Your task to perform on an android device: turn smart compose on in the gmail app Image 0: 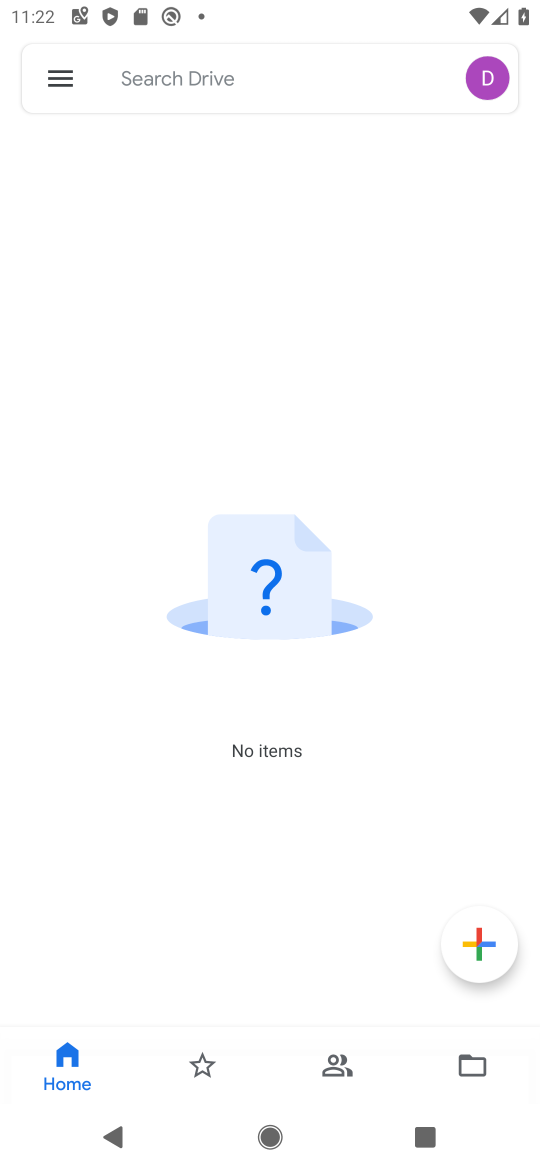
Step 0: drag from (302, 998) to (392, 127)
Your task to perform on an android device: turn smart compose on in the gmail app Image 1: 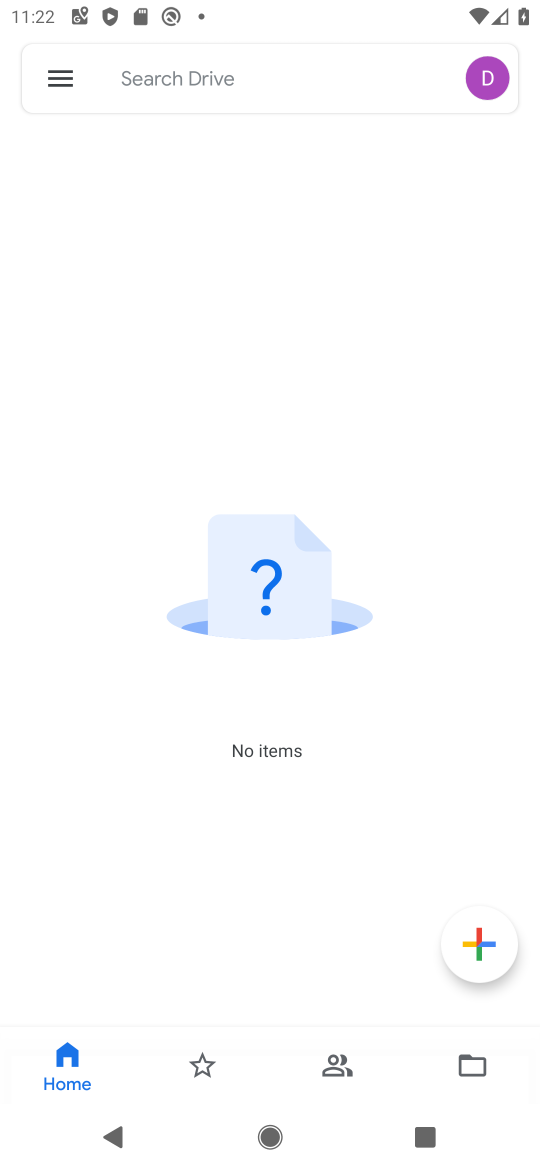
Step 1: click (67, 78)
Your task to perform on an android device: turn smart compose on in the gmail app Image 2: 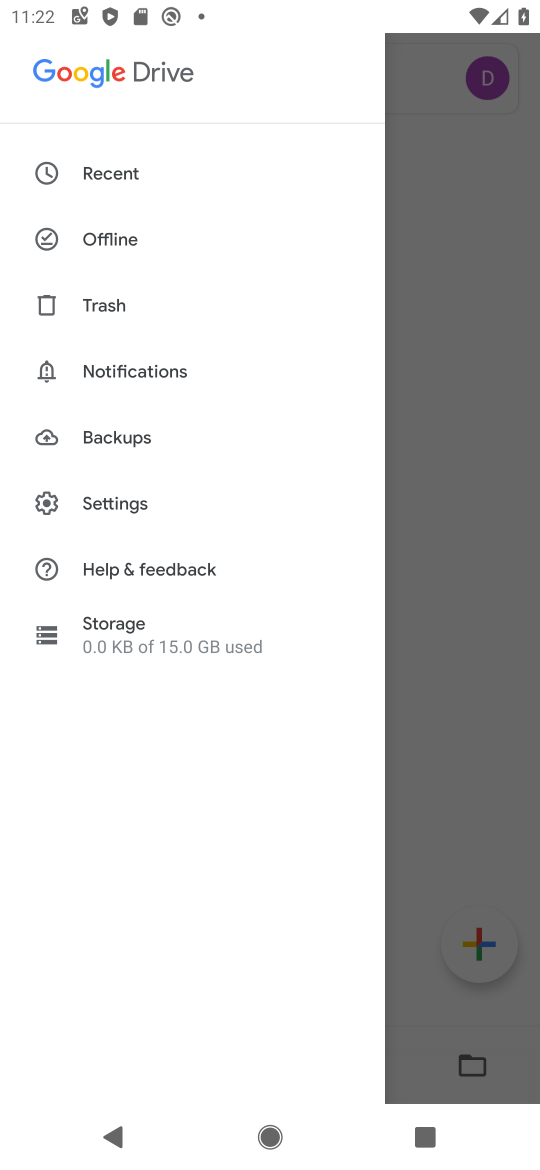
Step 2: press home button
Your task to perform on an android device: turn smart compose on in the gmail app Image 3: 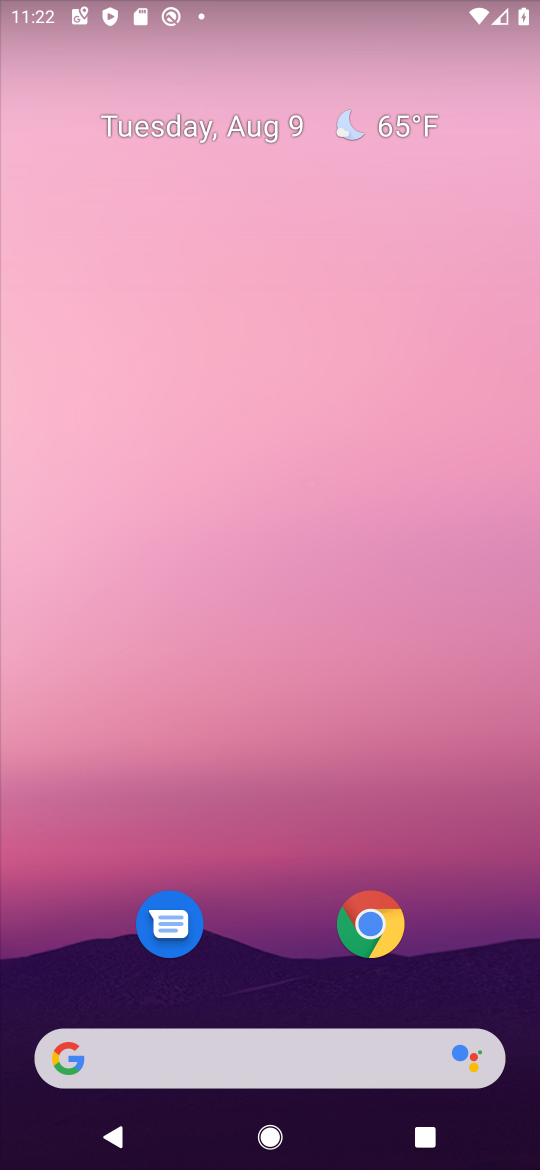
Step 3: drag from (251, 849) to (267, 0)
Your task to perform on an android device: turn smart compose on in the gmail app Image 4: 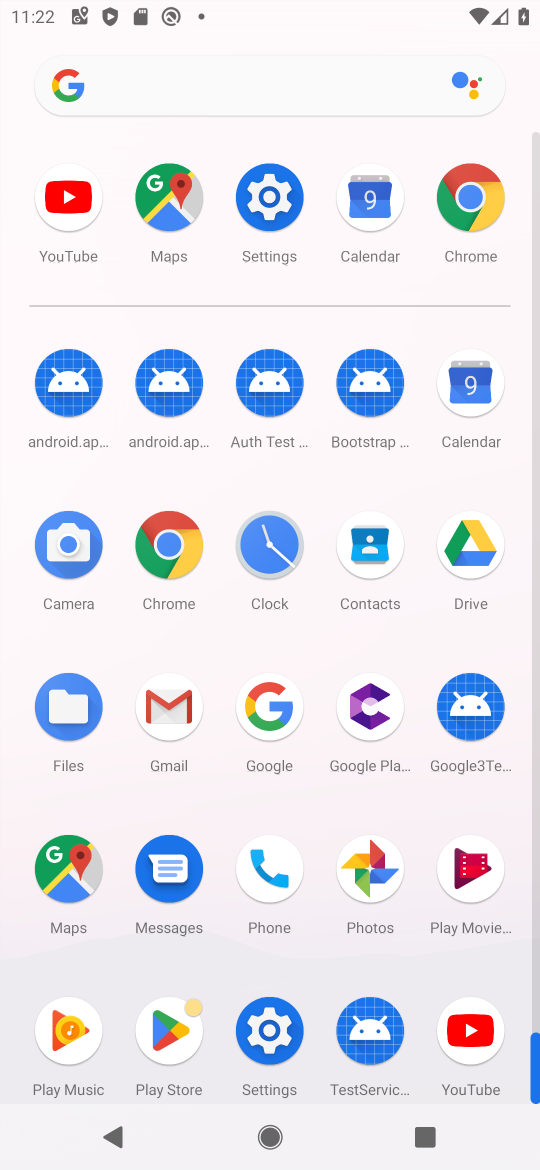
Step 4: click (184, 703)
Your task to perform on an android device: turn smart compose on in the gmail app Image 5: 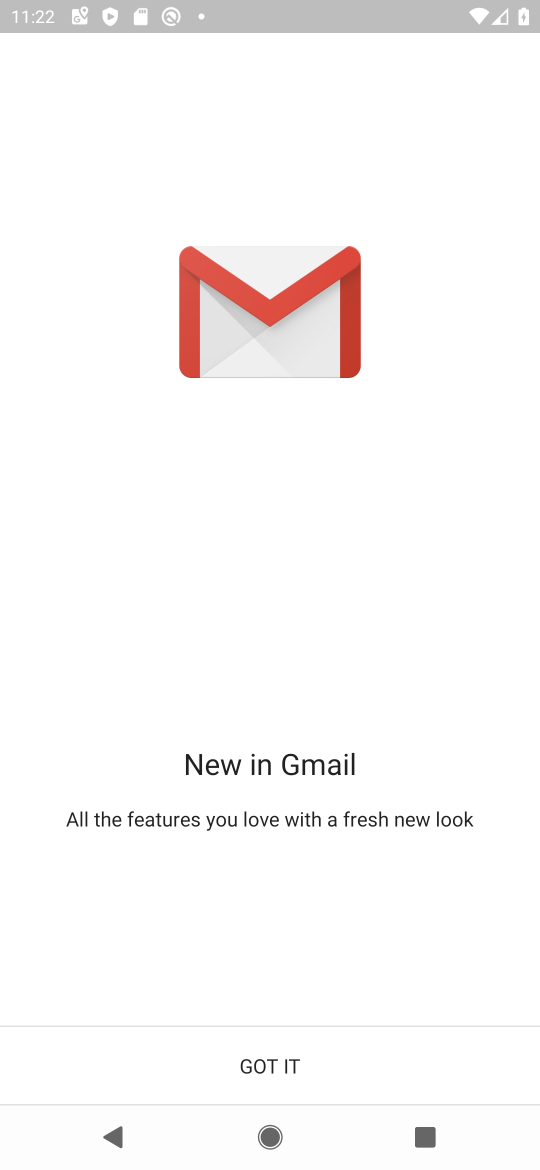
Step 5: click (279, 1051)
Your task to perform on an android device: turn smart compose on in the gmail app Image 6: 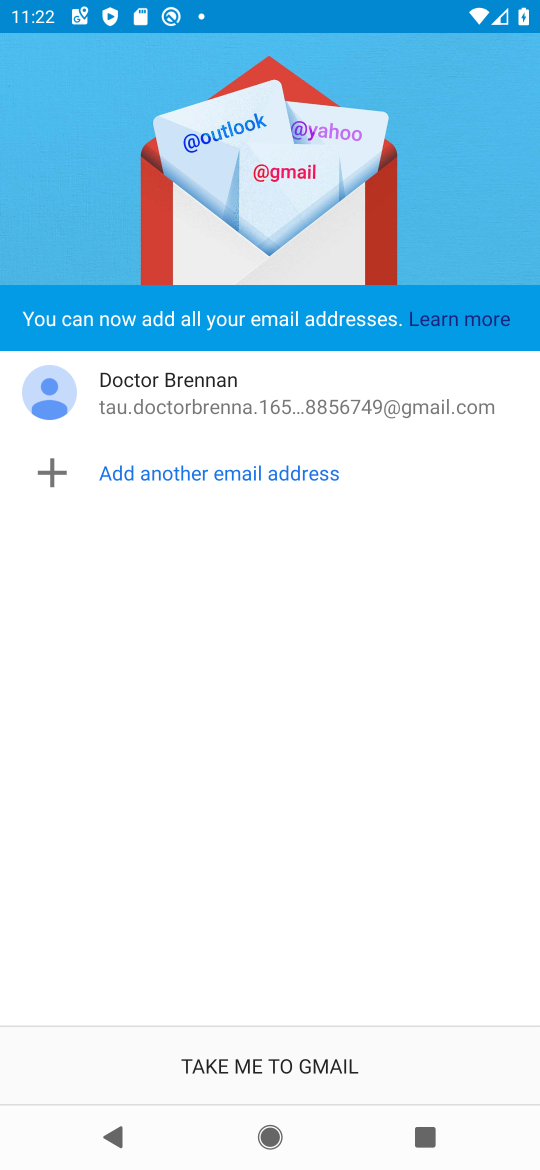
Step 6: click (279, 1051)
Your task to perform on an android device: turn smart compose on in the gmail app Image 7: 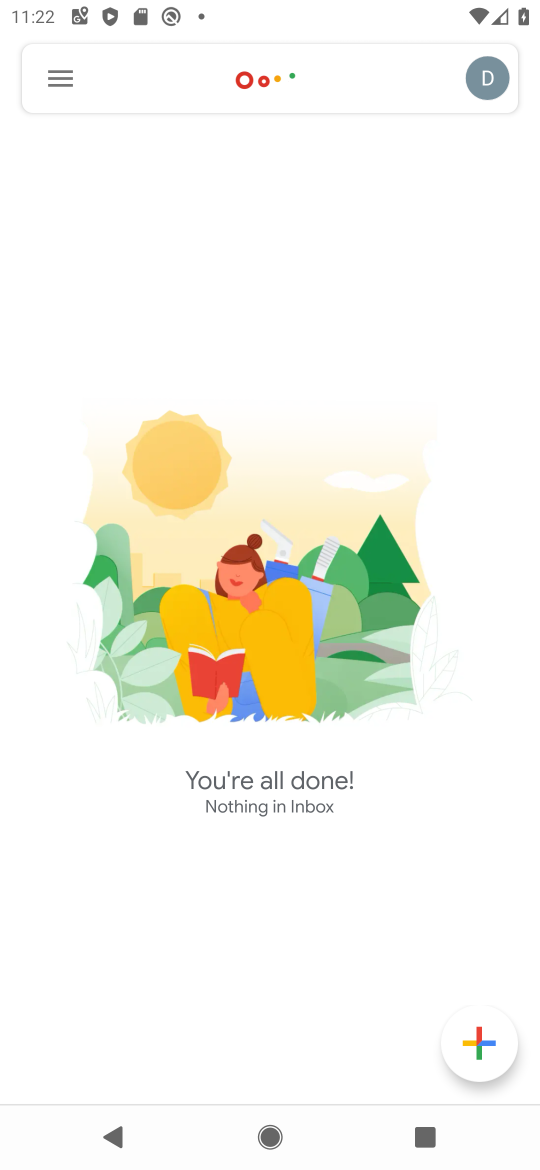
Step 7: click (52, 76)
Your task to perform on an android device: turn smart compose on in the gmail app Image 8: 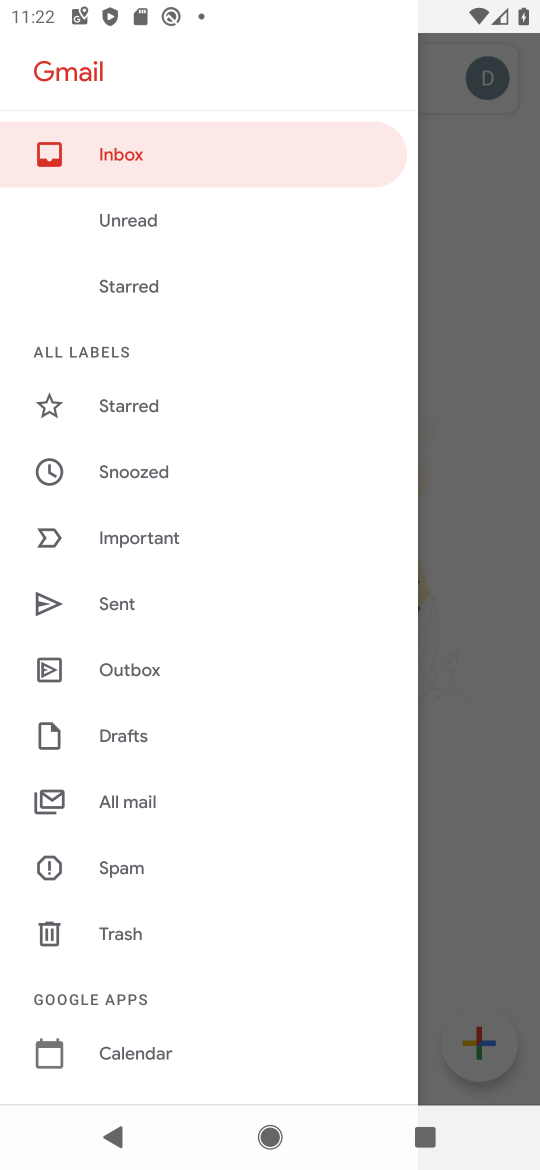
Step 8: drag from (181, 953) to (257, 0)
Your task to perform on an android device: turn smart compose on in the gmail app Image 9: 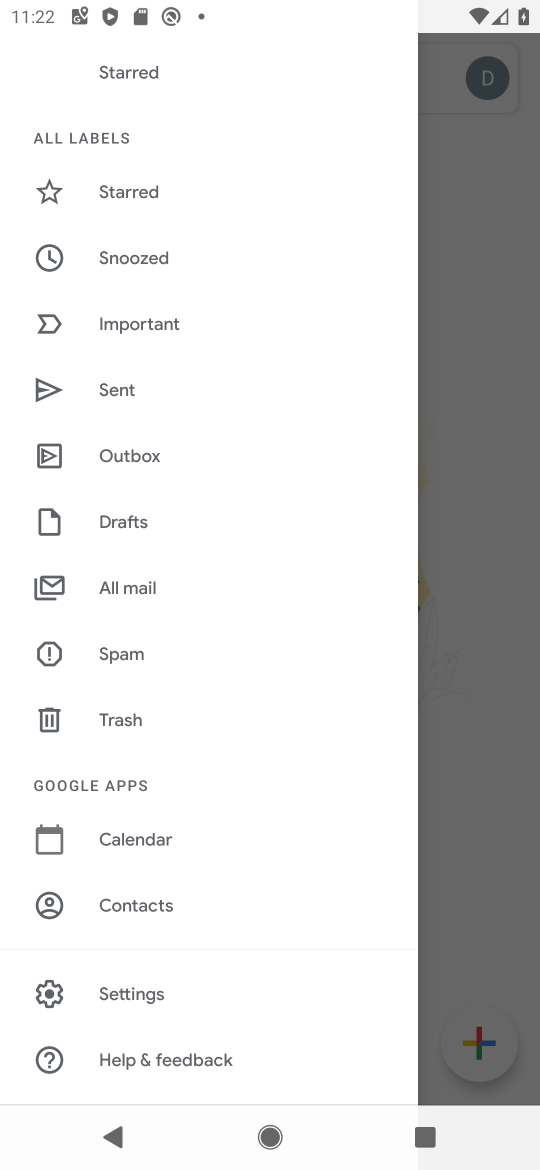
Step 9: click (128, 970)
Your task to perform on an android device: turn smart compose on in the gmail app Image 10: 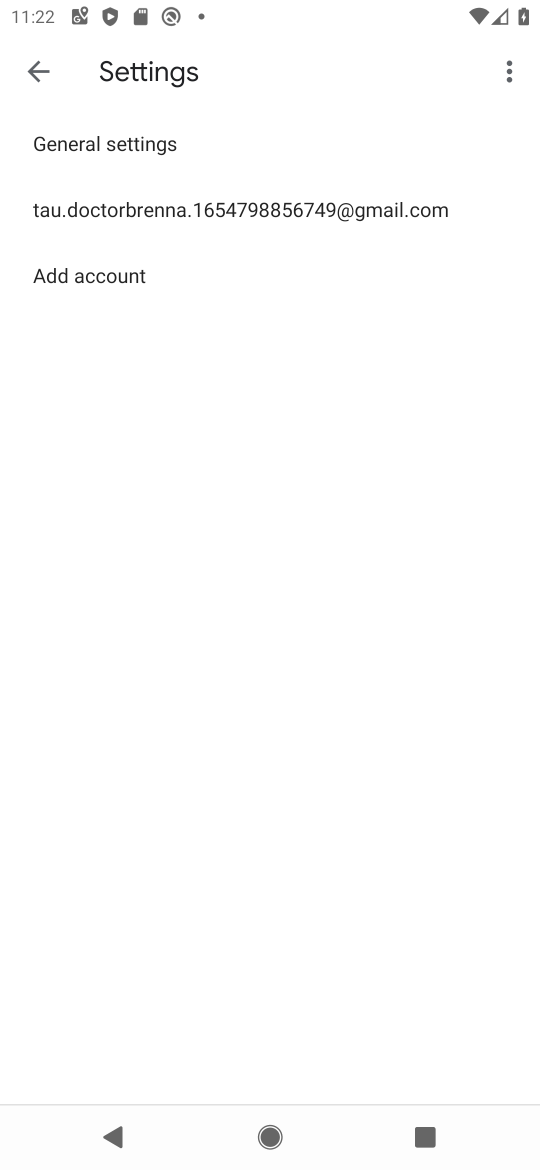
Step 10: click (312, 201)
Your task to perform on an android device: turn smart compose on in the gmail app Image 11: 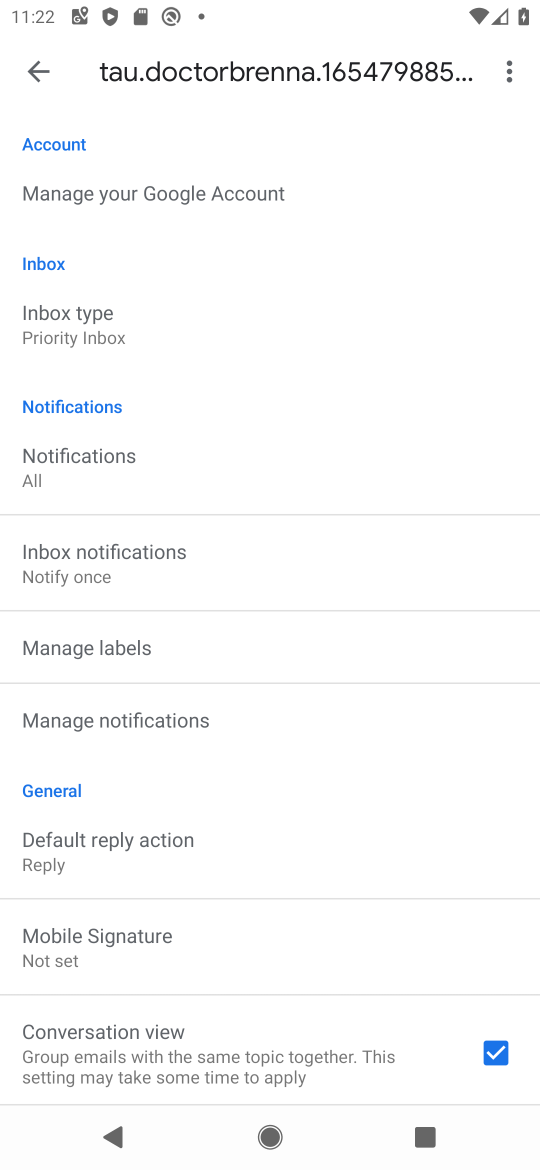
Step 11: task complete